Your task to perform on an android device: Open Google Image 0: 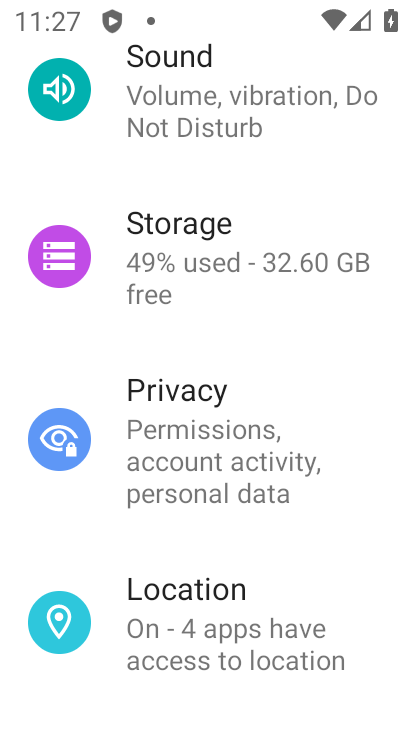
Step 0: press home button
Your task to perform on an android device: Open Google Image 1: 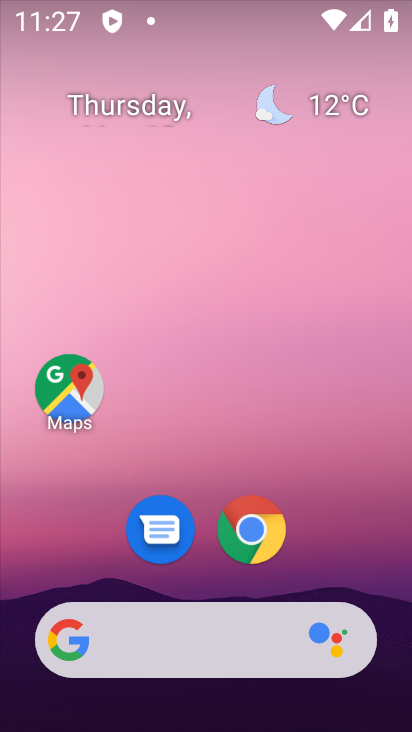
Step 1: drag from (312, 563) to (311, 212)
Your task to perform on an android device: Open Google Image 2: 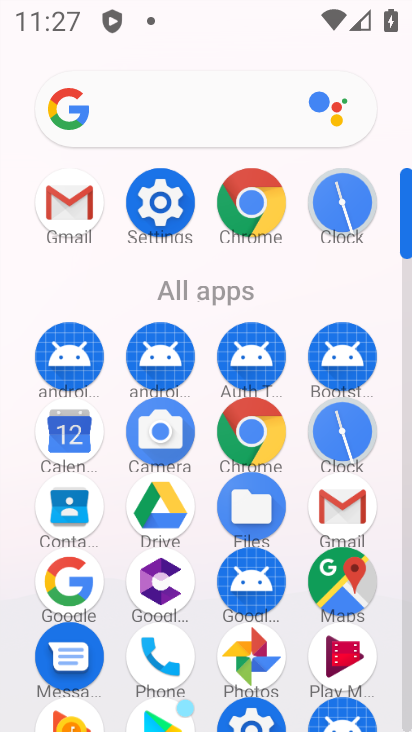
Step 2: drag from (188, 573) to (242, 245)
Your task to perform on an android device: Open Google Image 3: 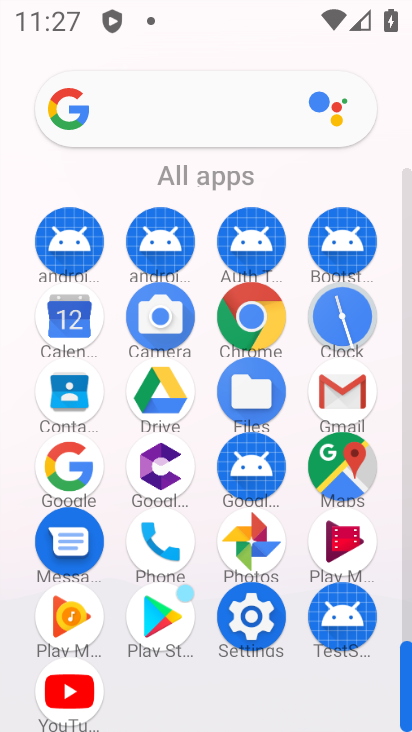
Step 3: click (75, 462)
Your task to perform on an android device: Open Google Image 4: 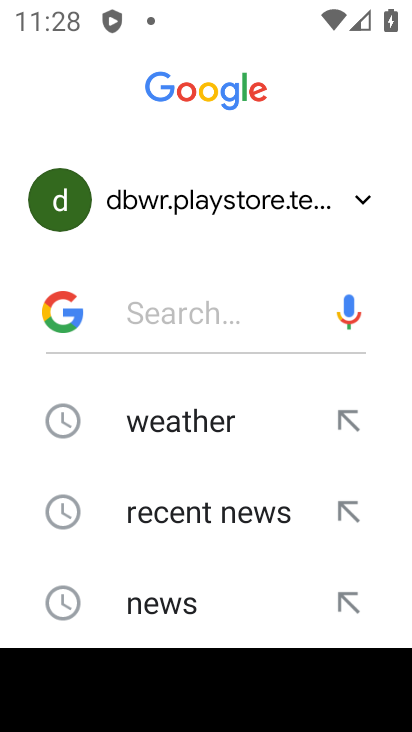
Step 4: task complete